Your task to perform on an android device: turn smart compose on in the gmail app Image 0: 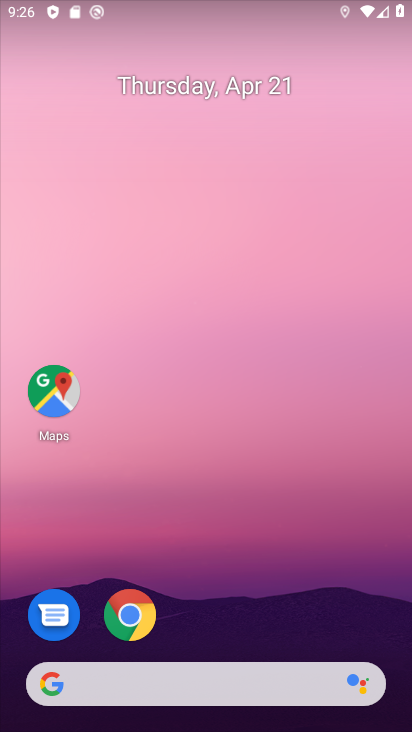
Step 0: drag from (205, 579) to (200, 161)
Your task to perform on an android device: turn smart compose on in the gmail app Image 1: 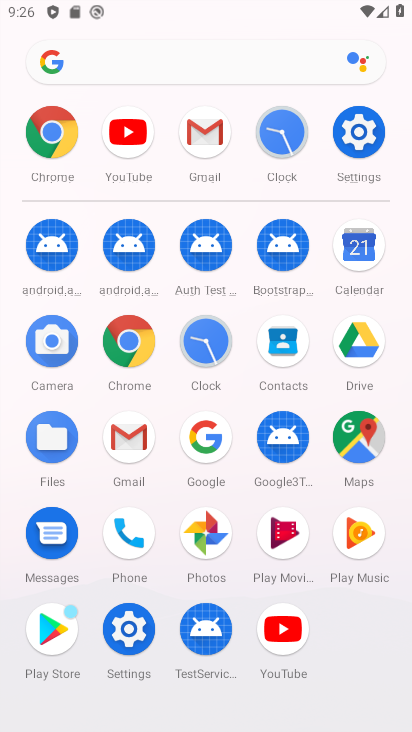
Step 1: click (129, 437)
Your task to perform on an android device: turn smart compose on in the gmail app Image 2: 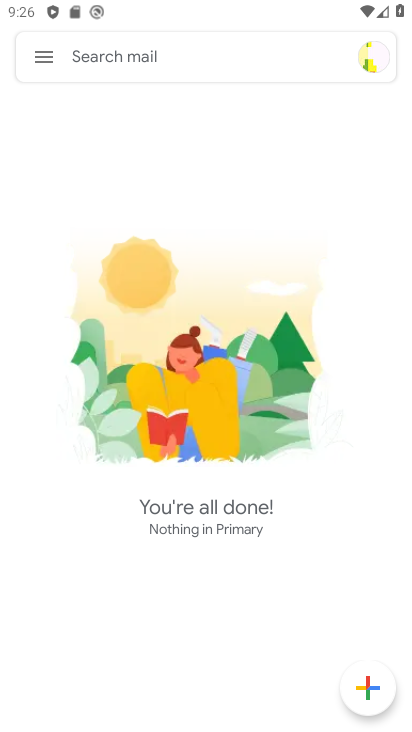
Step 2: click (40, 57)
Your task to perform on an android device: turn smart compose on in the gmail app Image 3: 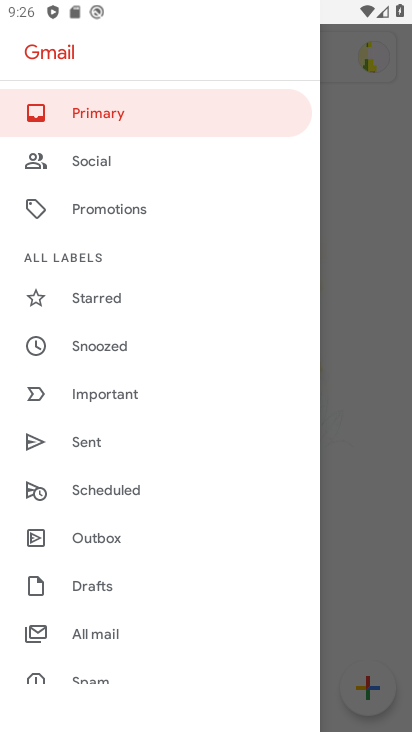
Step 3: drag from (103, 655) to (126, 307)
Your task to perform on an android device: turn smart compose on in the gmail app Image 4: 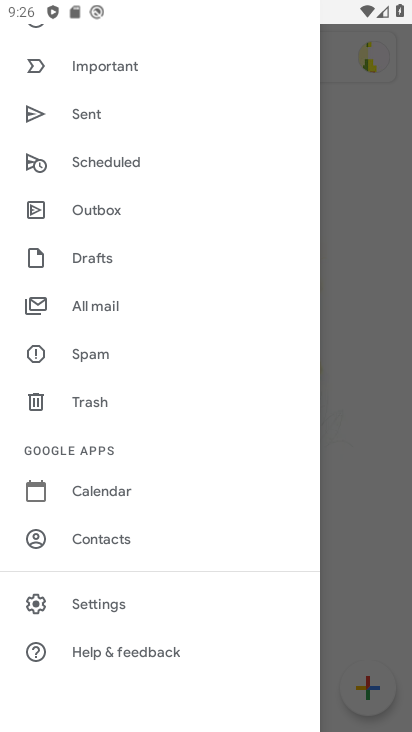
Step 4: click (96, 601)
Your task to perform on an android device: turn smart compose on in the gmail app Image 5: 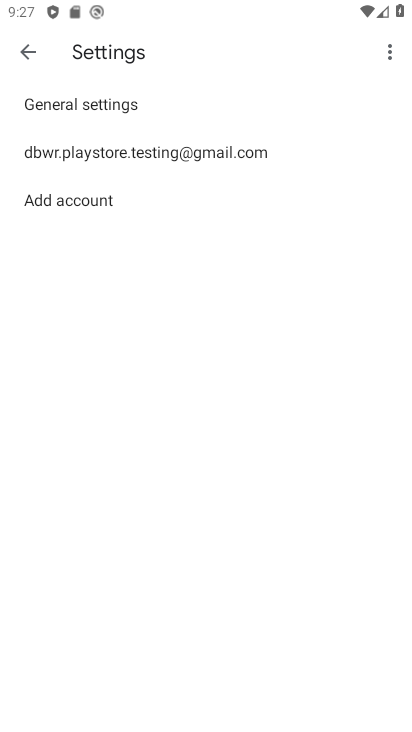
Step 5: click (148, 146)
Your task to perform on an android device: turn smart compose on in the gmail app Image 6: 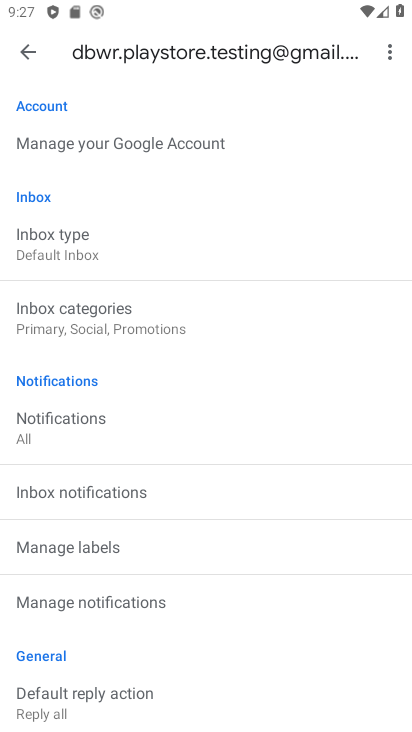
Step 6: task complete